Your task to perform on an android device: allow cookies in the chrome app Image 0: 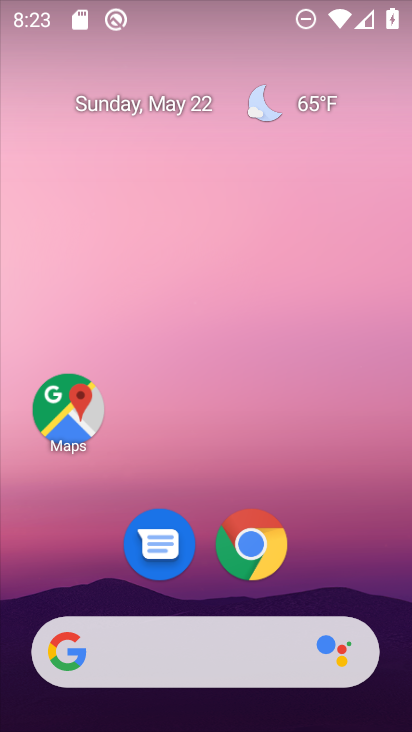
Step 0: click (255, 543)
Your task to perform on an android device: allow cookies in the chrome app Image 1: 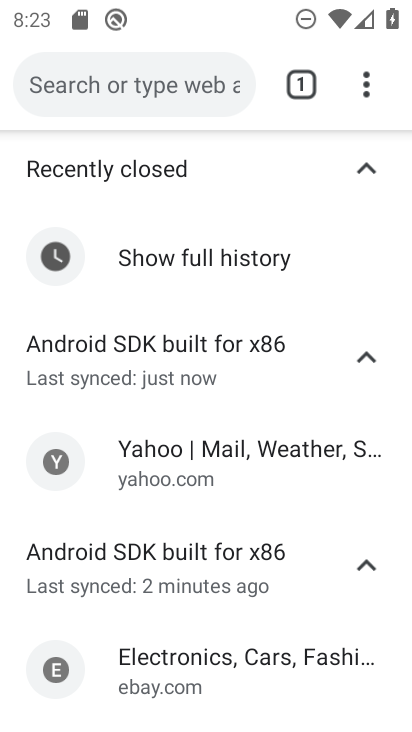
Step 1: click (360, 81)
Your task to perform on an android device: allow cookies in the chrome app Image 2: 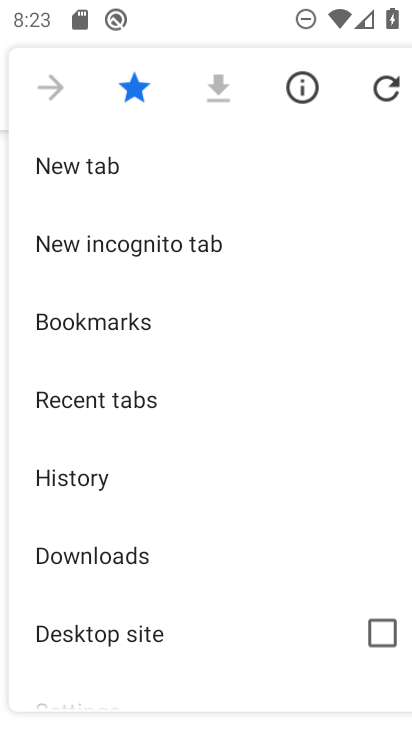
Step 2: drag from (226, 597) to (260, 292)
Your task to perform on an android device: allow cookies in the chrome app Image 3: 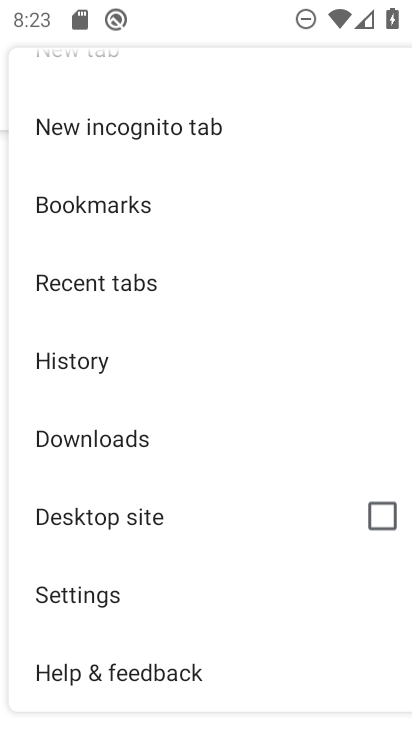
Step 3: click (70, 594)
Your task to perform on an android device: allow cookies in the chrome app Image 4: 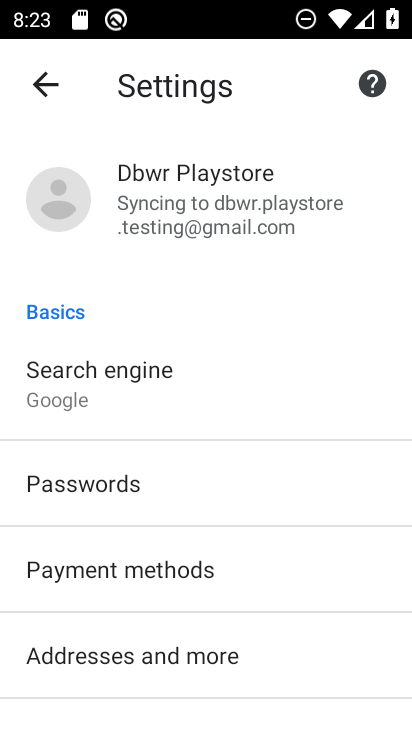
Step 4: drag from (307, 671) to (378, 315)
Your task to perform on an android device: allow cookies in the chrome app Image 5: 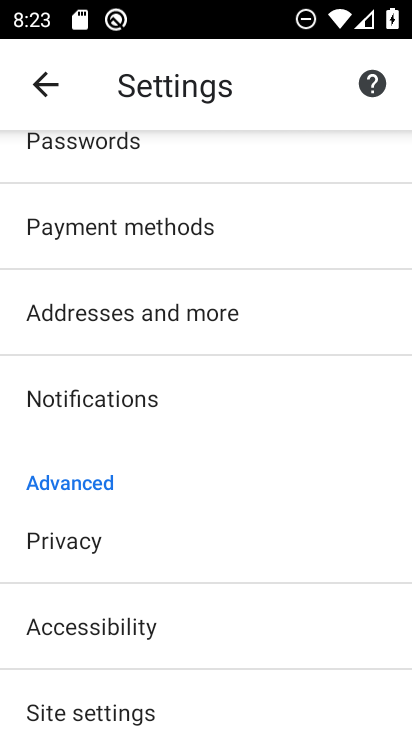
Step 5: click (96, 708)
Your task to perform on an android device: allow cookies in the chrome app Image 6: 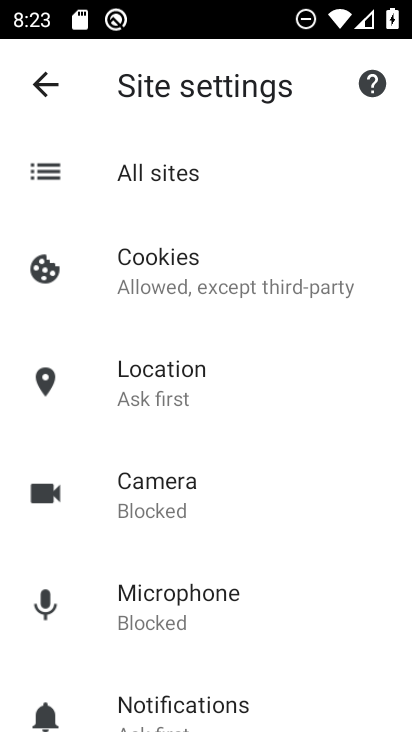
Step 6: drag from (275, 673) to (344, 294)
Your task to perform on an android device: allow cookies in the chrome app Image 7: 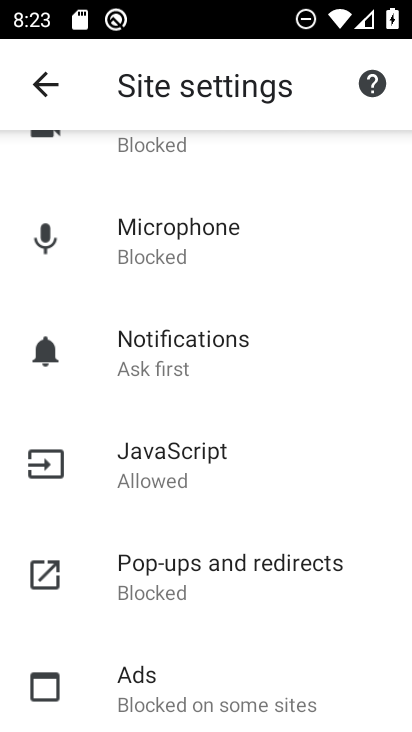
Step 7: drag from (306, 612) to (315, 377)
Your task to perform on an android device: allow cookies in the chrome app Image 8: 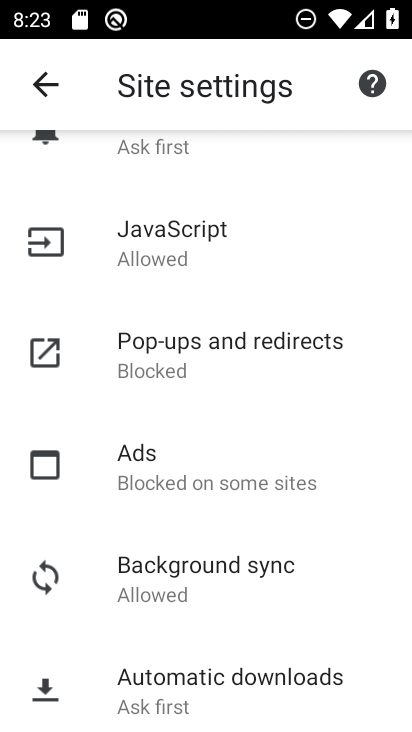
Step 8: drag from (376, 169) to (259, 586)
Your task to perform on an android device: allow cookies in the chrome app Image 9: 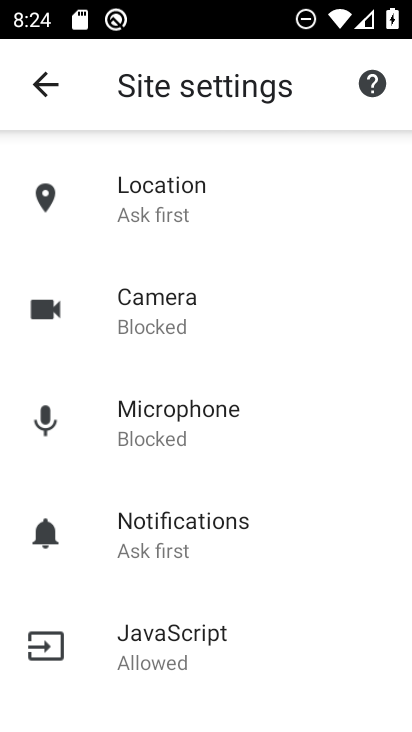
Step 9: drag from (340, 212) to (293, 522)
Your task to perform on an android device: allow cookies in the chrome app Image 10: 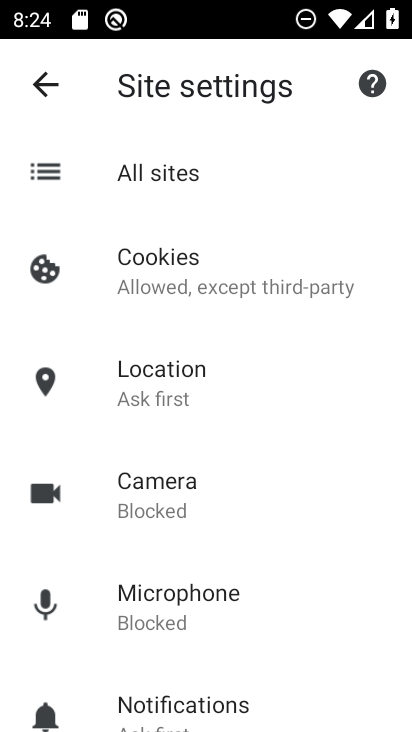
Step 10: click (149, 173)
Your task to perform on an android device: allow cookies in the chrome app Image 11: 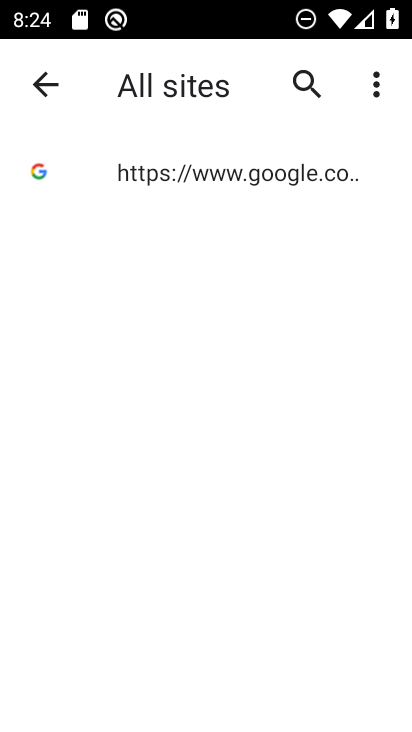
Step 11: task complete